Your task to perform on an android device: turn on airplane mode Image 0: 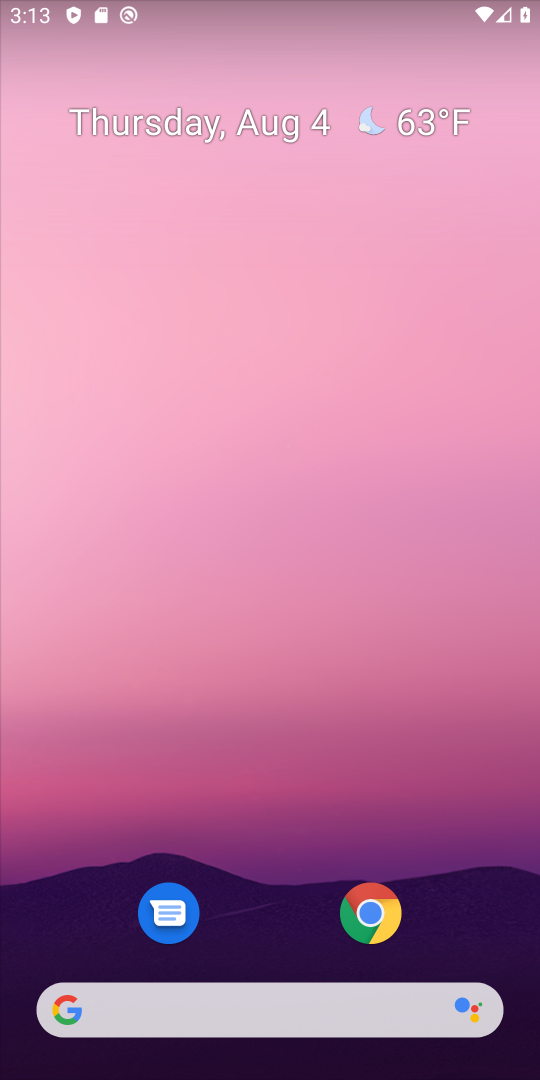
Step 0: drag from (309, 1027) to (321, 15)
Your task to perform on an android device: turn on airplane mode Image 1: 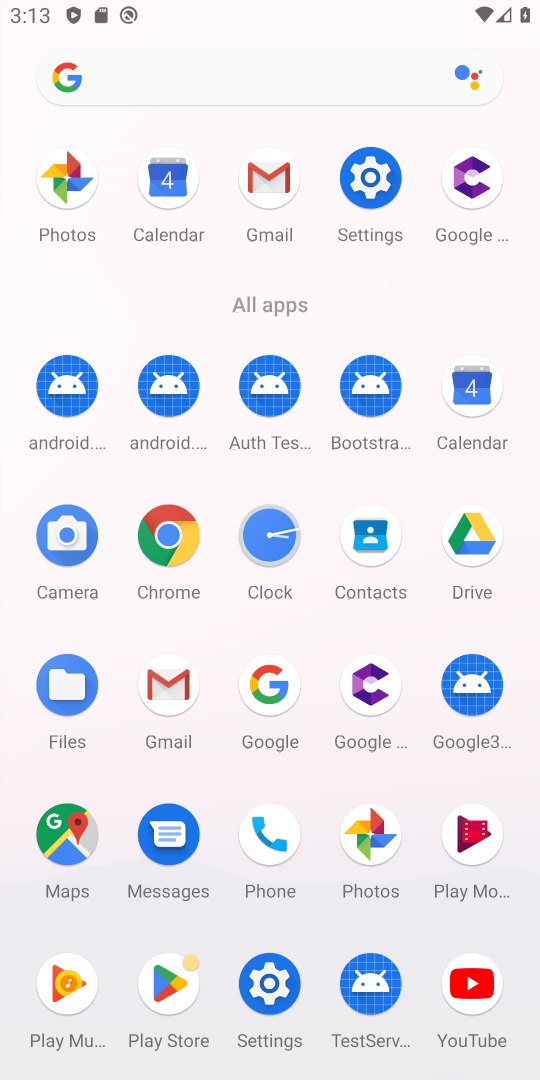
Step 1: click (386, 185)
Your task to perform on an android device: turn on airplane mode Image 2: 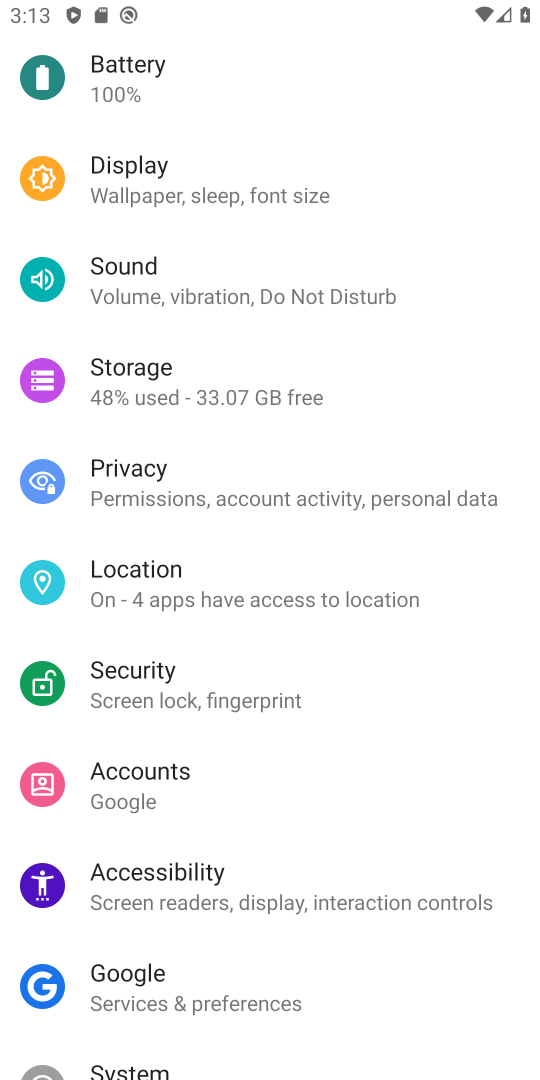
Step 2: drag from (282, 226) to (250, 931)
Your task to perform on an android device: turn on airplane mode Image 3: 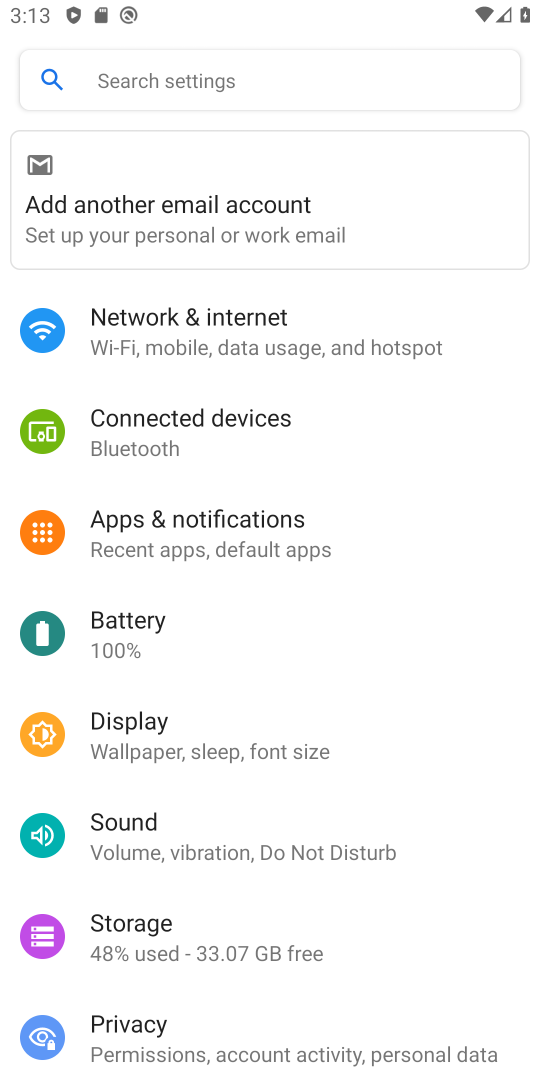
Step 3: click (312, 336)
Your task to perform on an android device: turn on airplane mode Image 4: 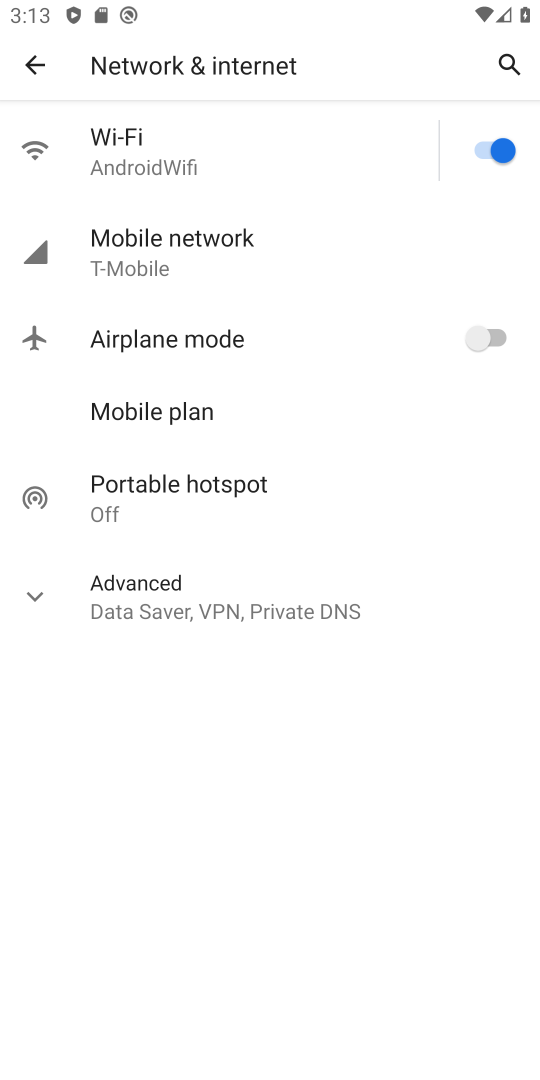
Step 4: click (492, 325)
Your task to perform on an android device: turn on airplane mode Image 5: 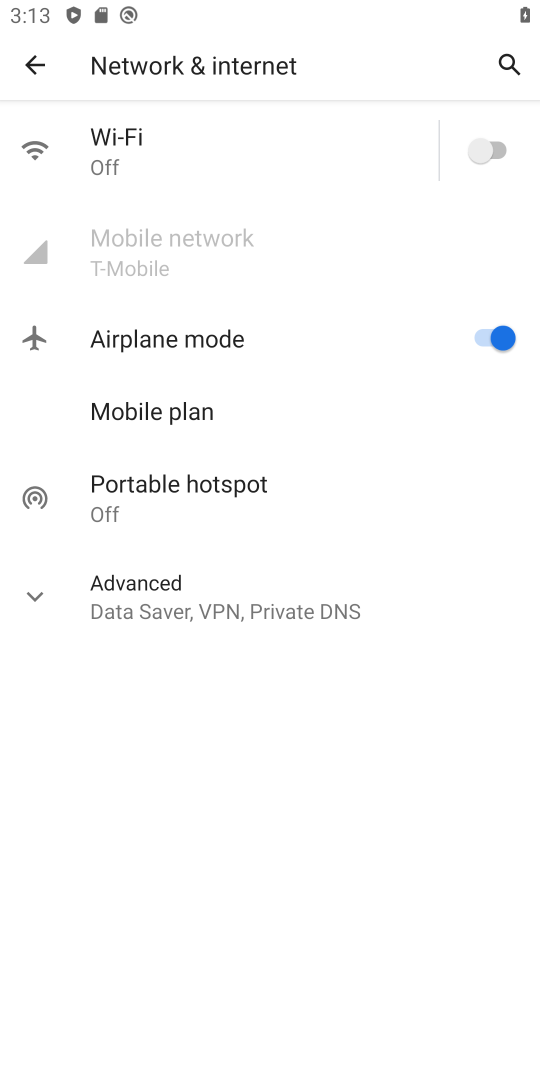
Step 5: task complete